Your task to perform on an android device: Do I have any events today? Image 0: 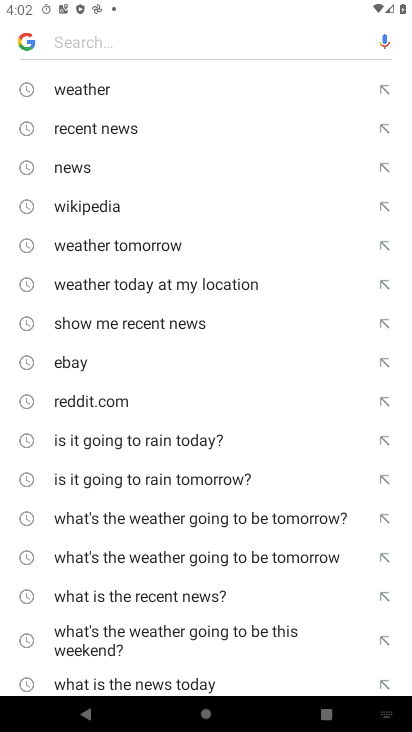
Step 0: task impossible